Your task to perform on an android device: turn off location history Image 0: 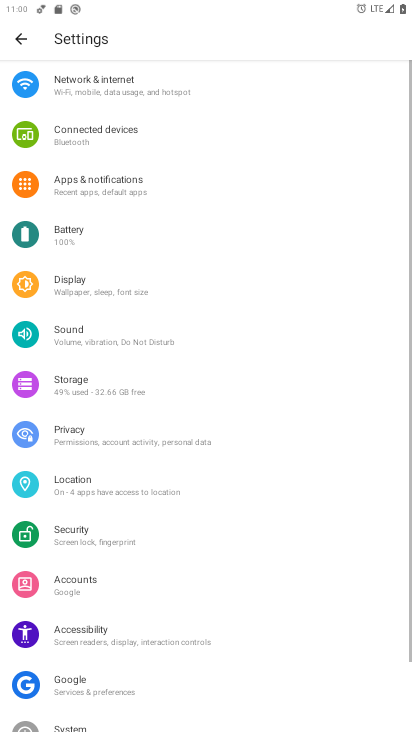
Step 0: click (109, 475)
Your task to perform on an android device: turn off location history Image 1: 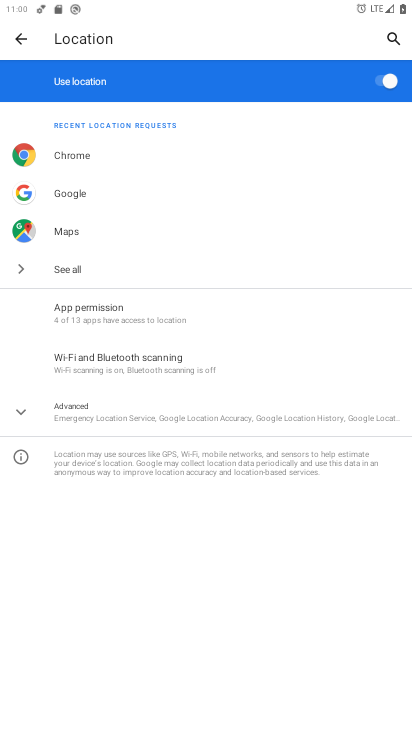
Step 1: click (111, 407)
Your task to perform on an android device: turn off location history Image 2: 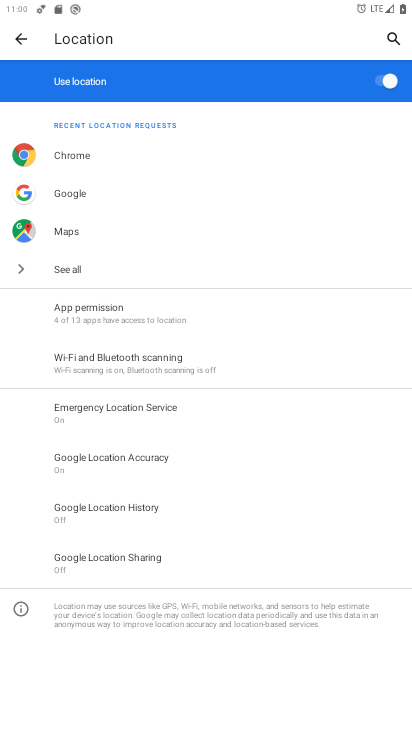
Step 2: click (94, 521)
Your task to perform on an android device: turn off location history Image 3: 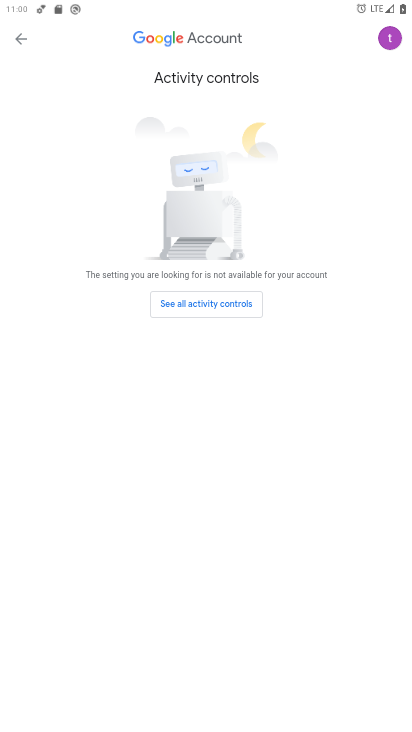
Step 3: task complete